Your task to perform on an android device: change the clock style Image 0: 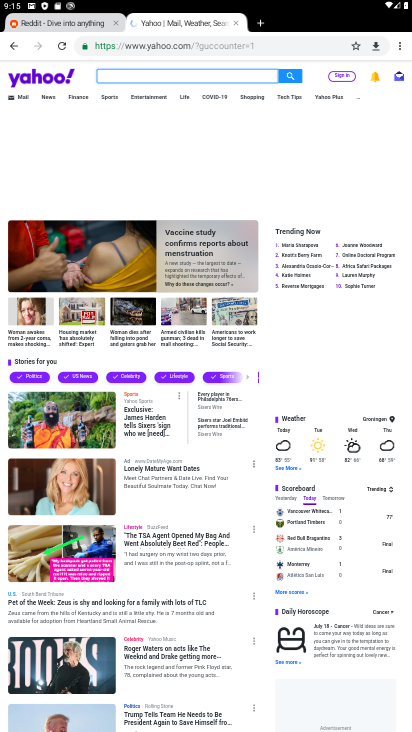
Step 0: press home button
Your task to perform on an android device: change the clock style Image 1: 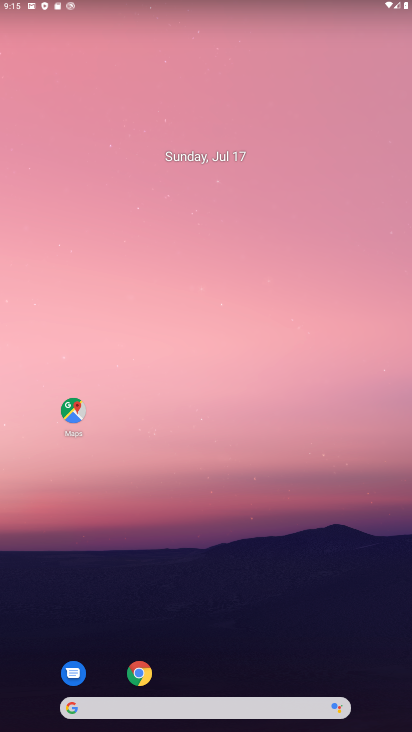
Step 1: drag from (215, 609) to (197, 101)
Your task to perform on an android device: change the clock style Image 2: 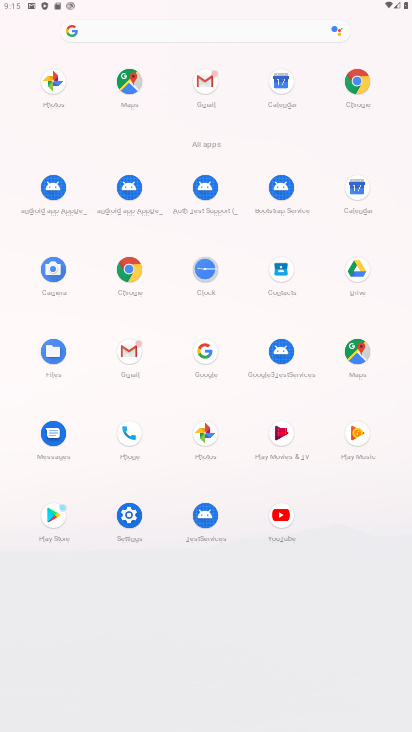
Step 2: click (203, 267)
Your task to perform on an android device: change the clock style Image 3: 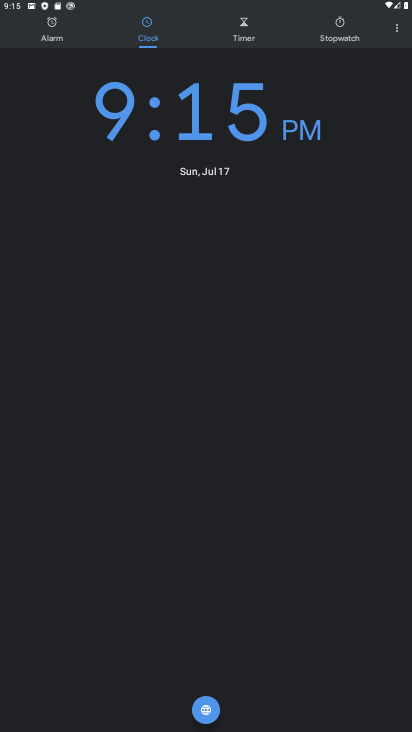
Step 3: click (400, 33)
Your task to perform on an android device: change the clock style Image 4: 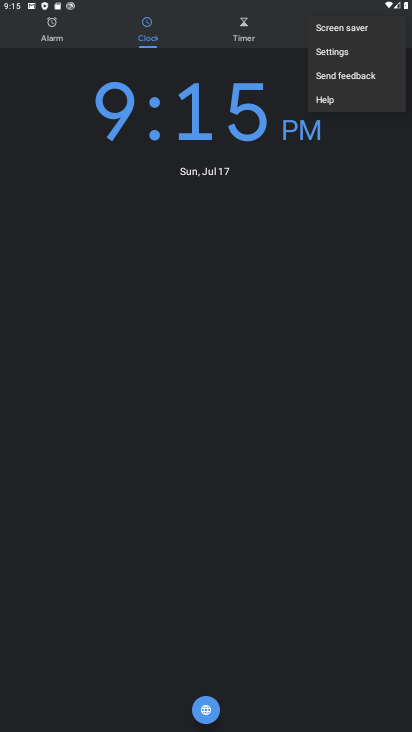
Step 4: click (334, 56)
Your task to perform on an android device: change the clock style Image 5: 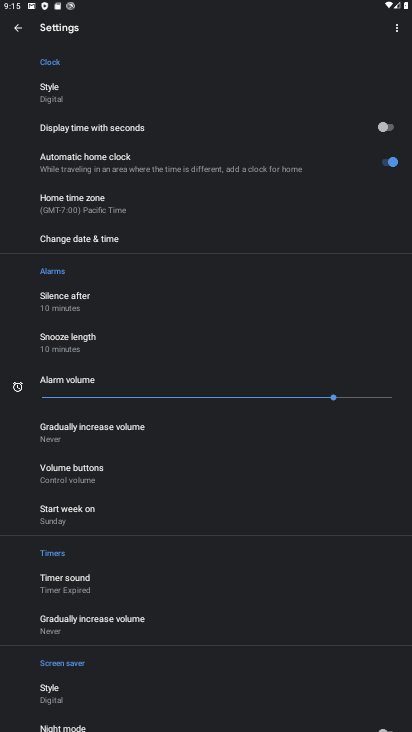
Step 5: click (55, 90)
Your task to perform on an android device: change the clock style Image 6: 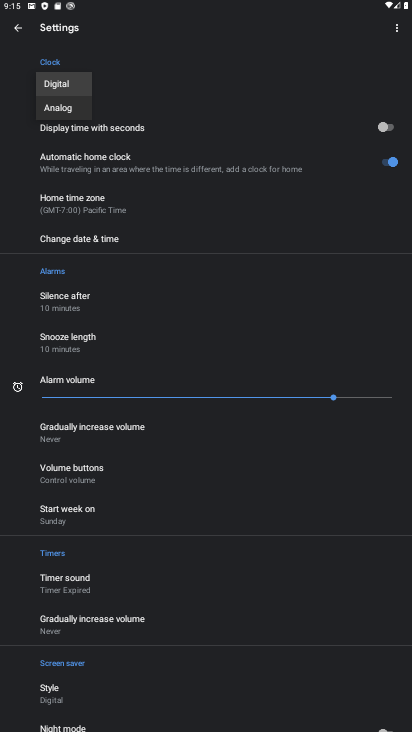
Step 6: click (59, 116)
Your task to perform on an android device: change the clock style Image 7: 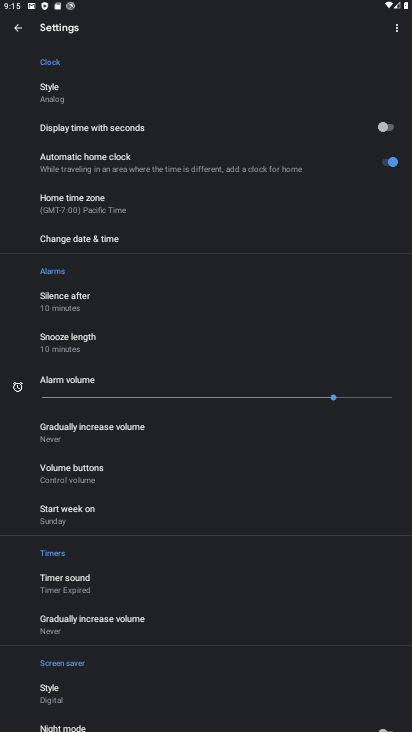
Step 7: task complete